Your task to perform on an android device: change the upload size in google photos Image 0: 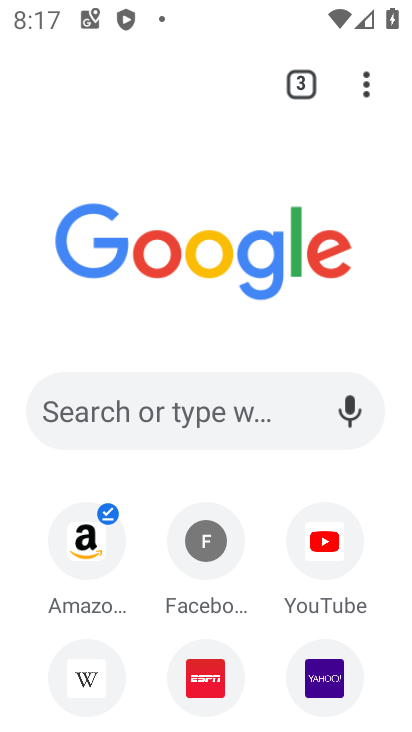
Step 0: press home button
Your task to perform on an android device: change the upload size in google photos Image 1: 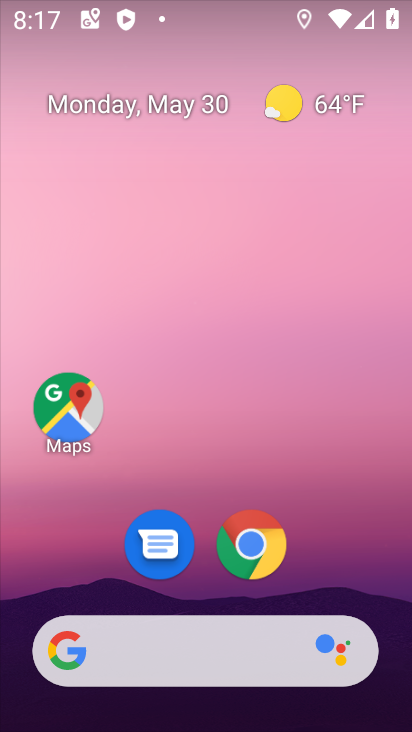
Step 1: drag from (213, 589) to (245, 59)
Your task to perform on an android device: change the upload size in google photos Image 2: 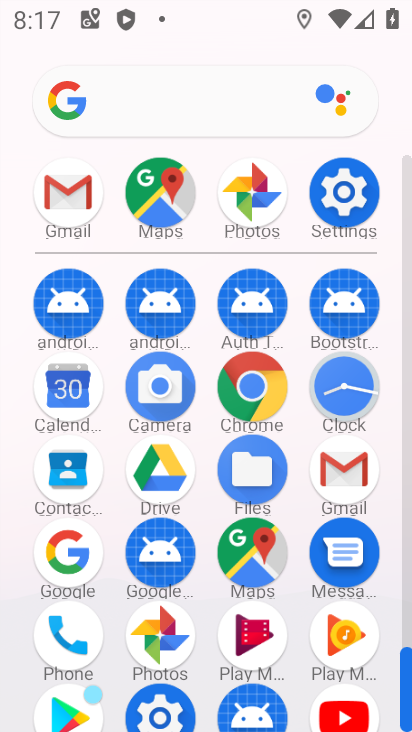
Step 2: click (155, 649)
Your task to perform on an android device: change the upload size in google photos Image 3: 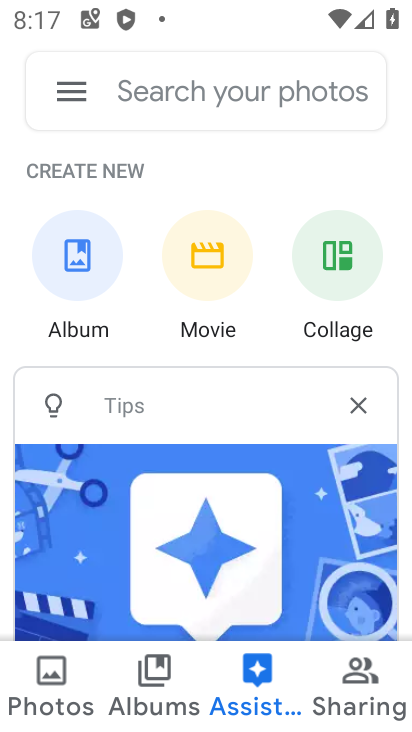
Step 3: click (59, 98)
Your task to perform on an android device: change the upload size in google photos Image 4: 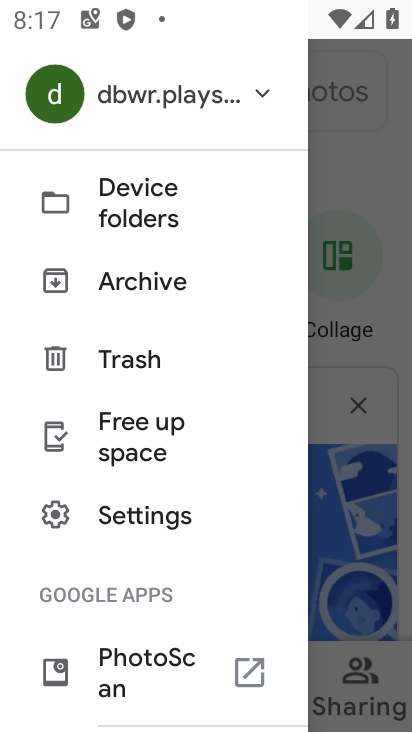
Step 4: click (143, 517)
Your task to perform on an android device: change the upload size in google photos Image 5: 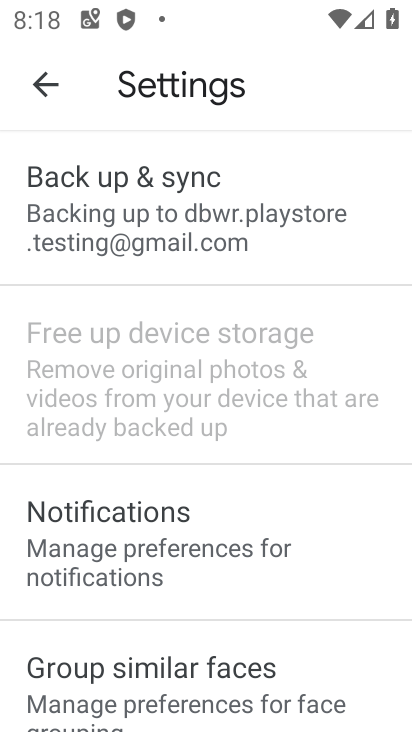
Step 5: click (143, 224)
Your task to perform on an android device: change the upload size in google photos Image 6: 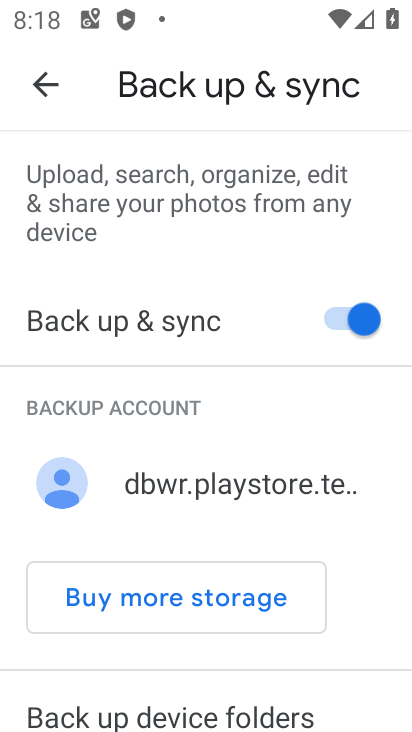
Step 6: drag from (280, 573) to (146, 100)
Your task to perform on an android device: change the upload size in google photos Image 7: 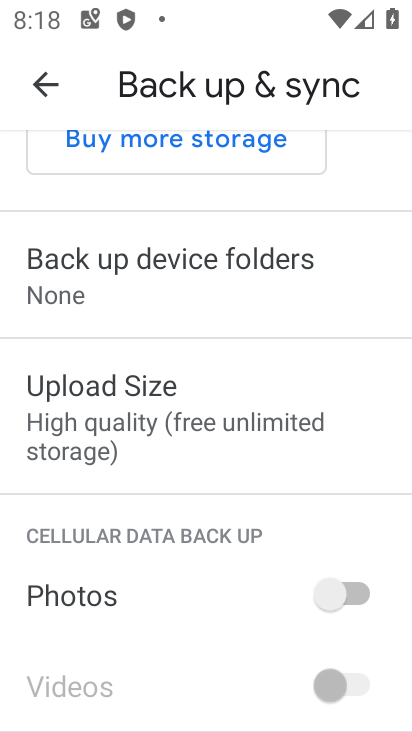
Step 7: click (137, 397)
Your task to perform on an android device: change the upload size in google photos Image 8: 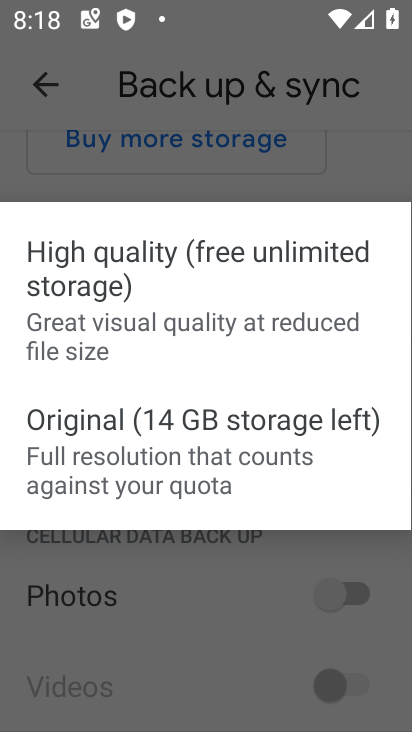
Step 8: click (163, 439)
Your task to perform on an android device: change the upload size in google photos Image 9: 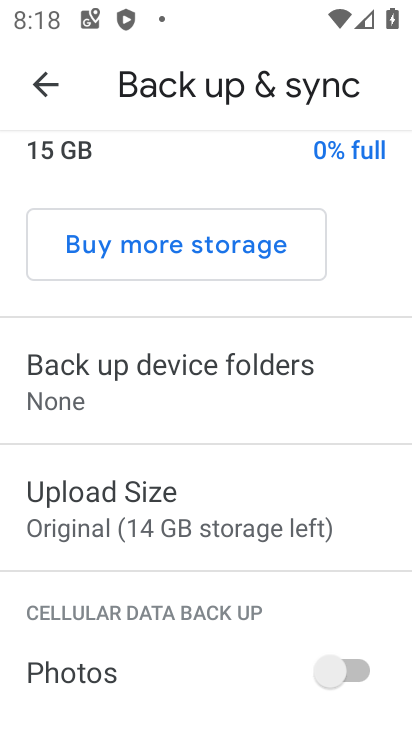
Step 9: task complete